Your task to perform on an android device: Check the weather Image 0: 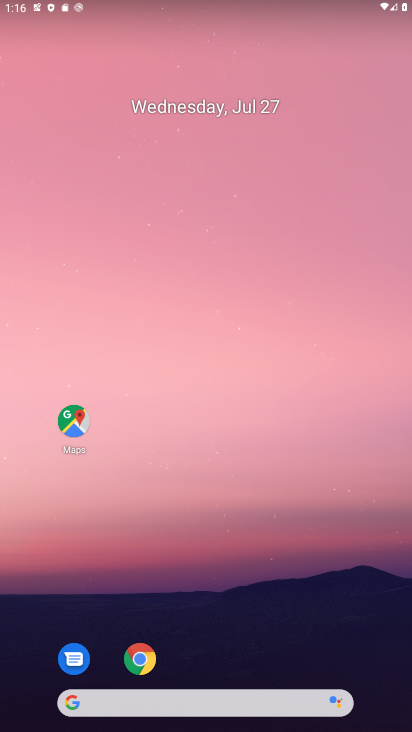
Step 0: drag from (252, 611) to (353, 174)
Your task to perform on an android device: Check the weather Image 1: 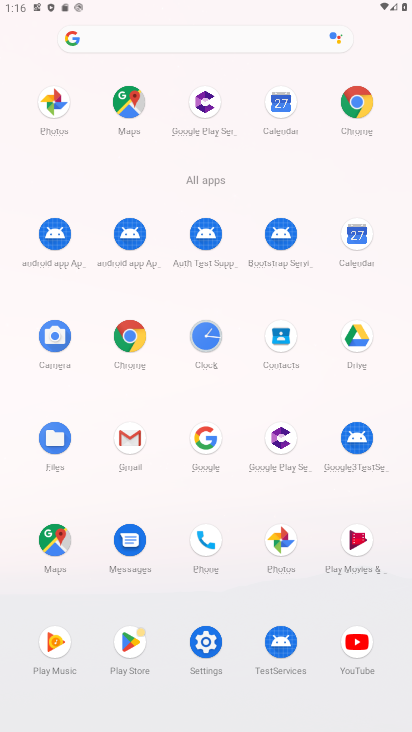
Step 1: click (186, 442)
Your task to perform on an android device: Check the weather Image 2: 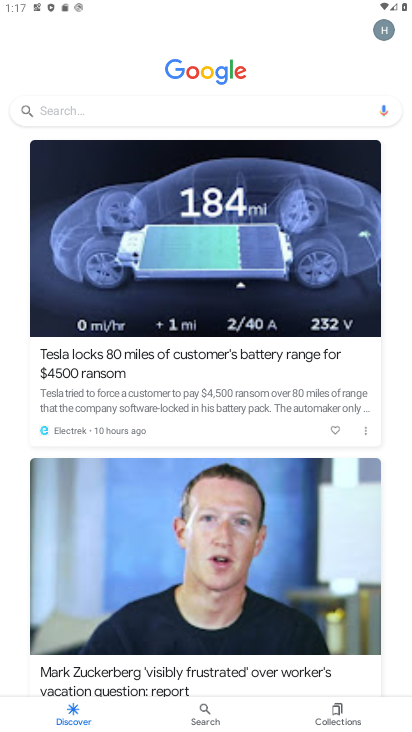
Step 2: click (75, 102)
Your task to perform on an android device: Check the weather Image 3: 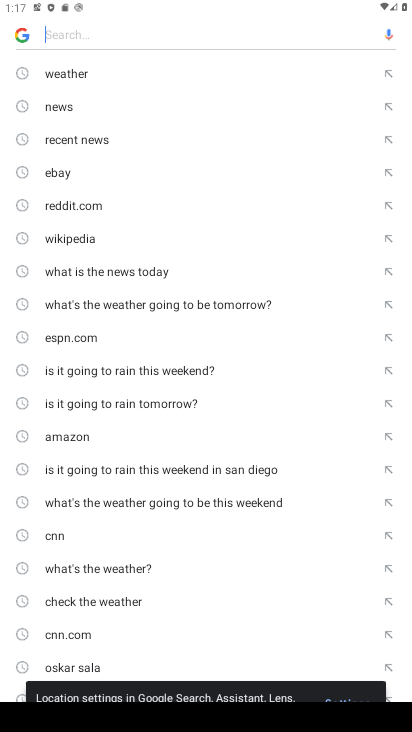
Step 3: click (84, 76)
Your task to perform on an android device: Check the weather Image 4: 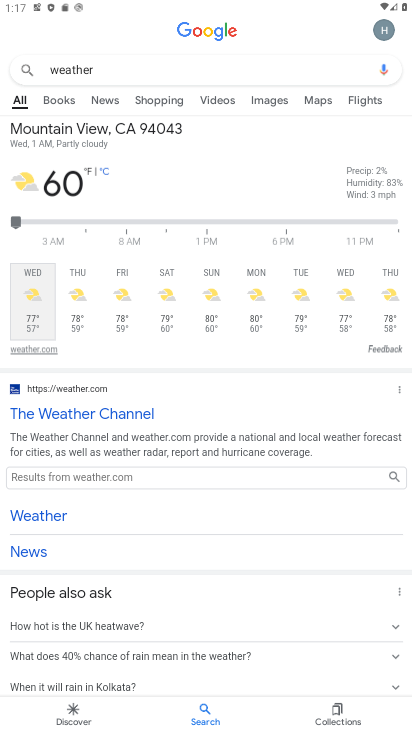
Step 4: task complete